Your task to perform on an android device: Search for sushi restaurants on Maps Image 0: 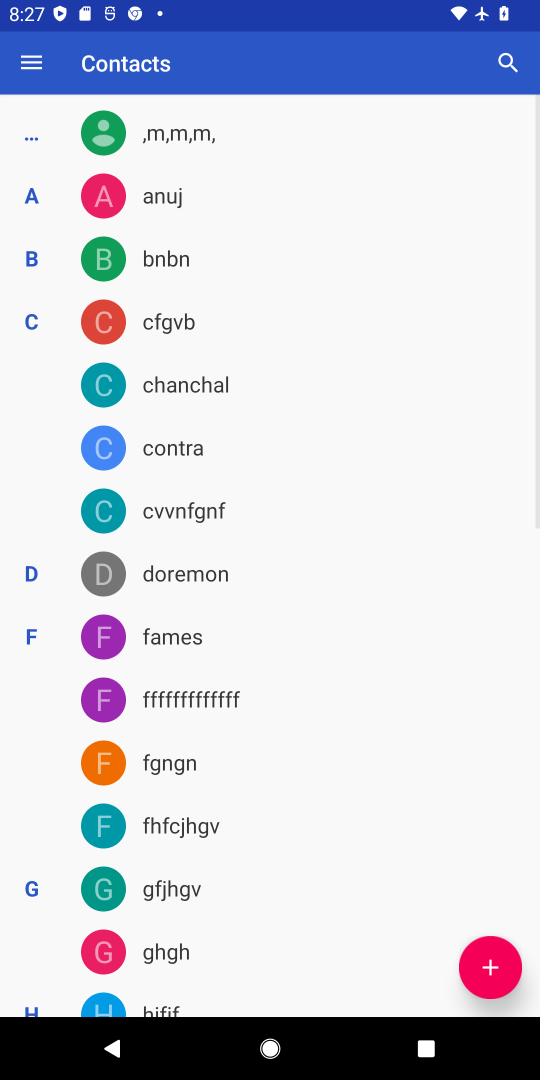
Step 0: press home button
Your task to perform on an android device: Search for sushi restaurants on Maps Image 1: 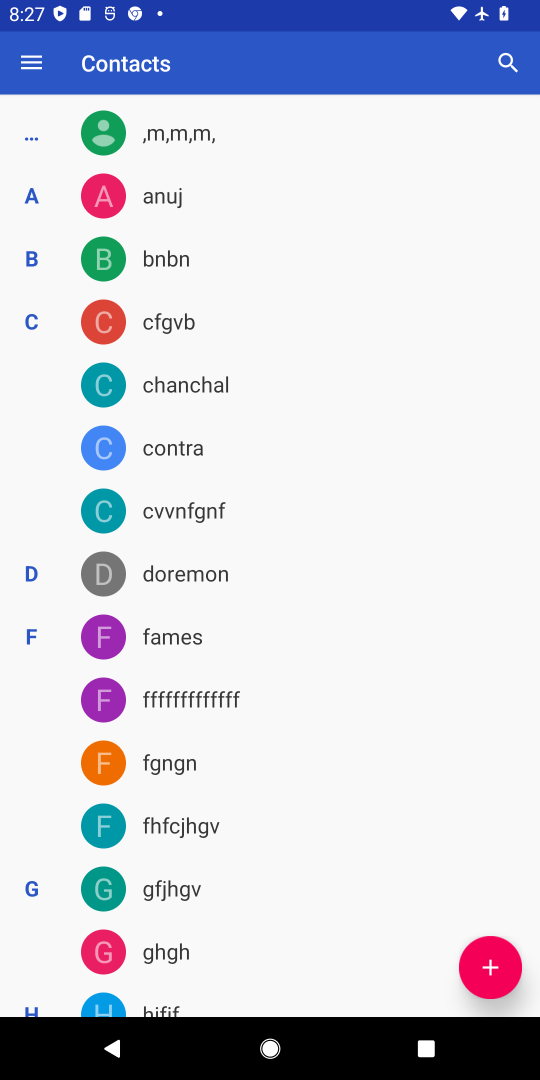
Step 1: press home button
Your task to perform on an android device: Search for sushi restaurants on Maps Image 2: 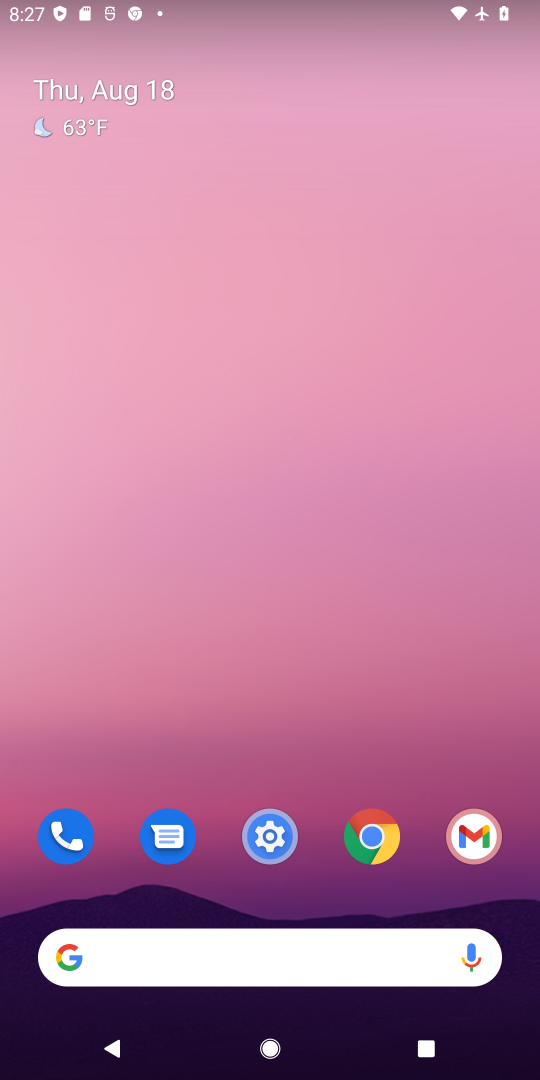
Step 2: drag from (383, 768) to (399, 217)
Your task to perform on an android device: Search for sushi restaurants on Maps Image 3: 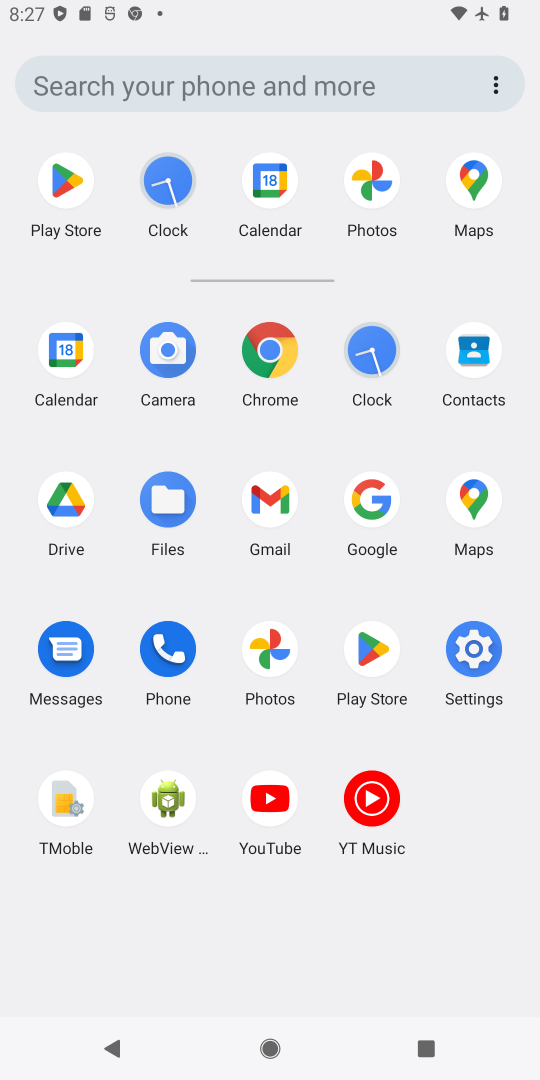
Step 3: click (463, 512)
Your task to perform on an android device: Search for sushi restaurants on Maps Image 4: 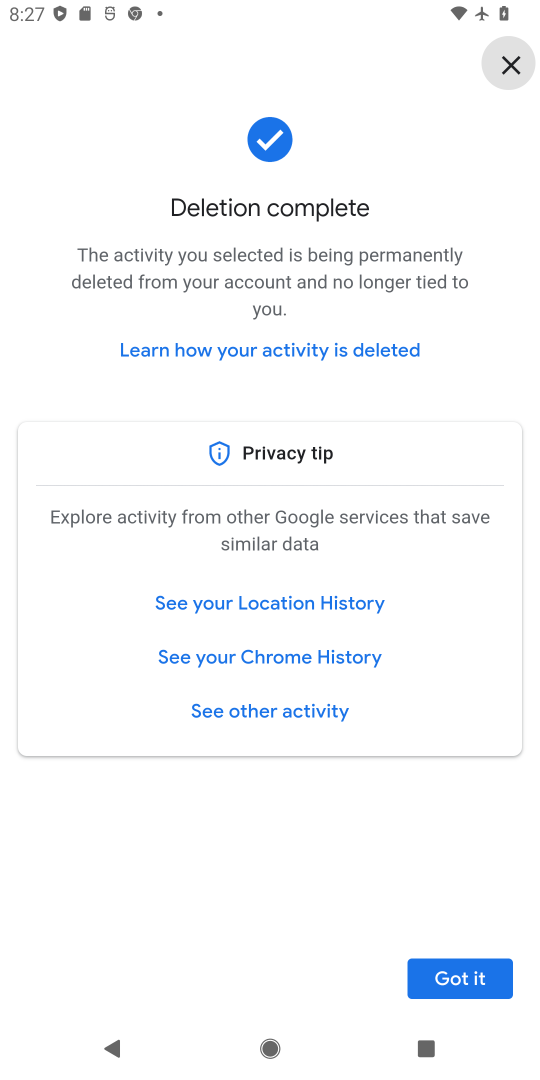
Step 4: click (484, 973)
Your task to perform on an android device: Search for sushi restaurants on Maps Image 5: 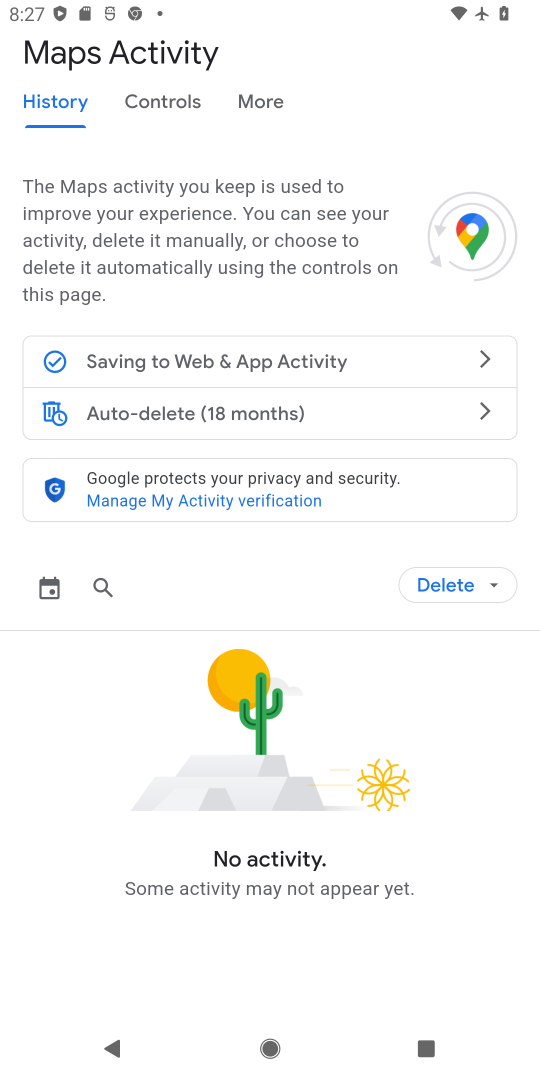
Step 5: press back button
Your task to perform on an android device: Search for sushi restaurants on Maps Image 6: 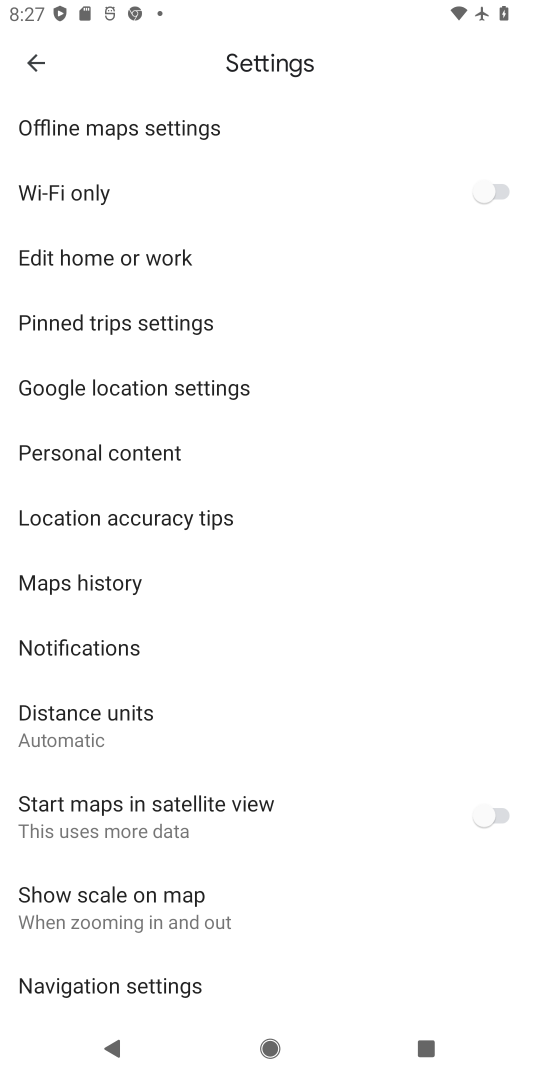
Step 6: click (45, 53)
Your task to perform on an android device: Search for sushi restaurants on Maps Image 7: 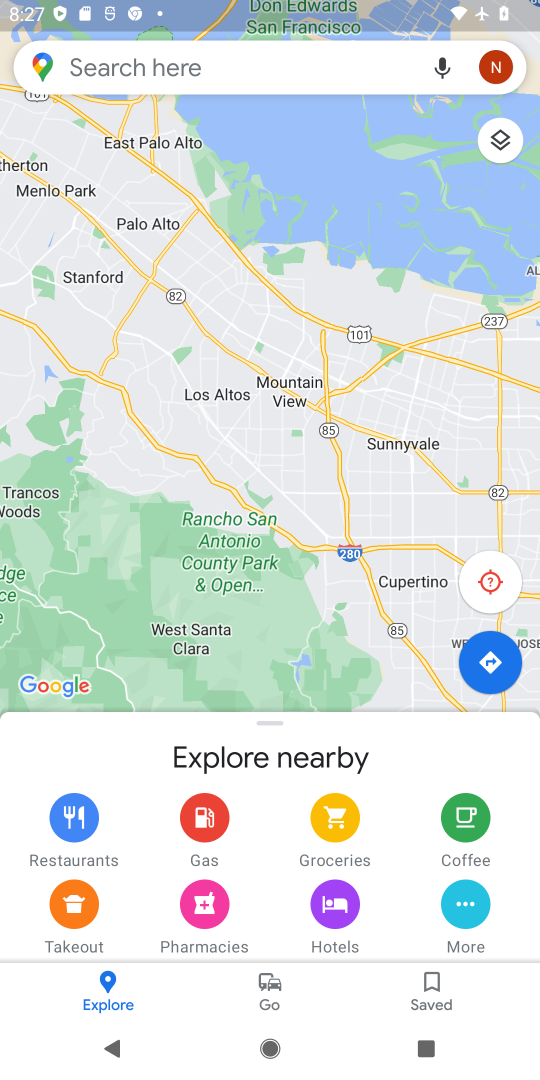
Step 7: click (142, 88)
Your task to perform on an android device: Search for sushi restaurants on Maps Image 8: 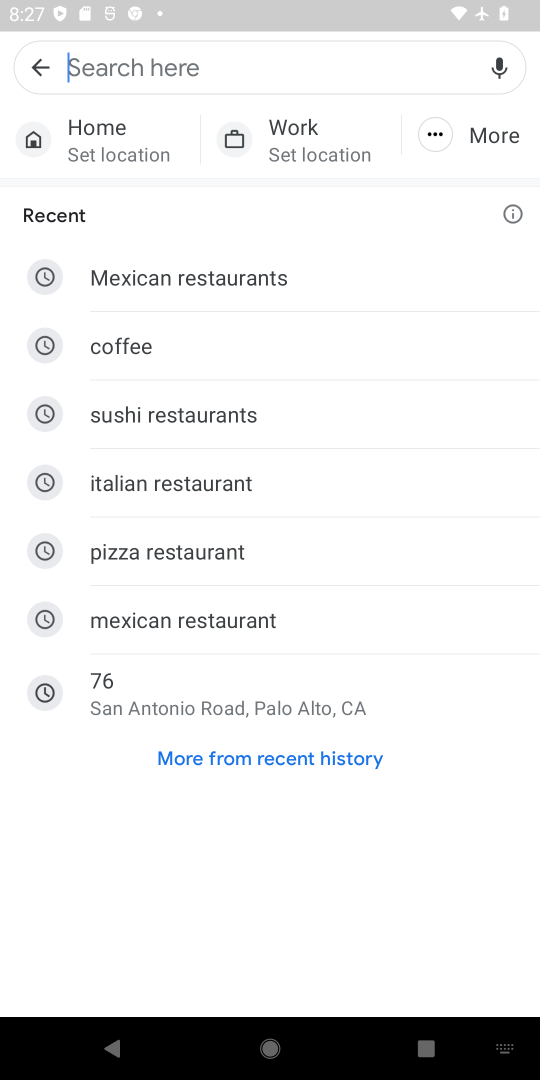
Step 8: click (196, 416)
Your task to perform on an android device: Search for sushi restaurants on Maps Image 9: 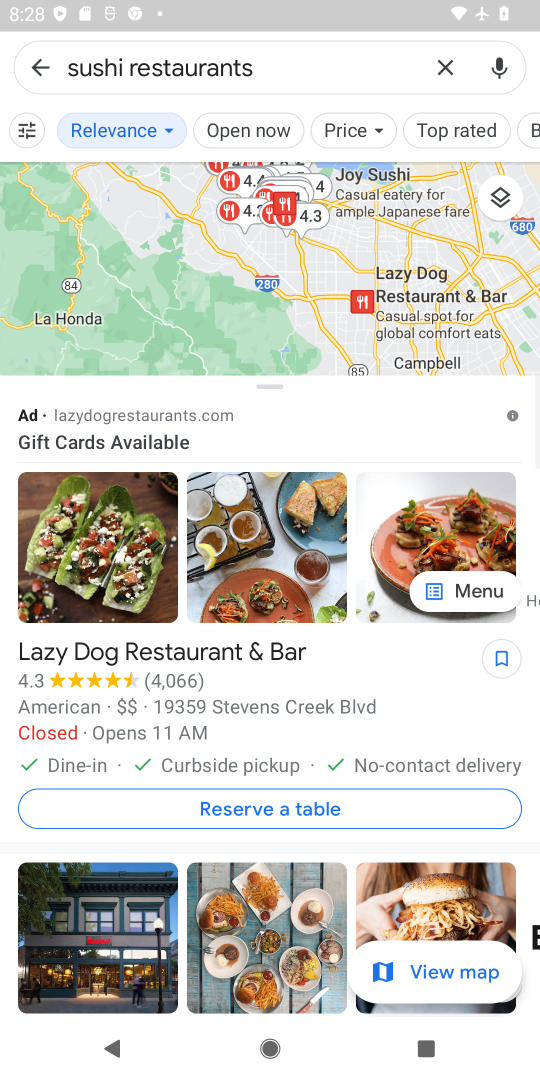
Step 9: task complete